Your task to perform on an android device: Find coffee shops on Maps Image 0: 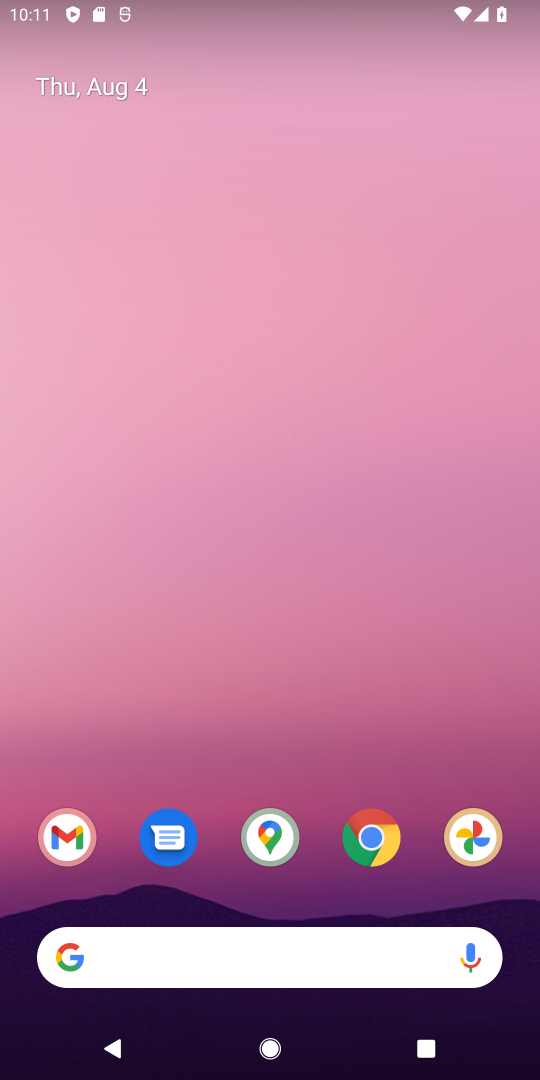
Step 0: drag from (286, 653) to (196, 38)
Your task to perform on an android device: Find coffee shops on Maps Image 1: 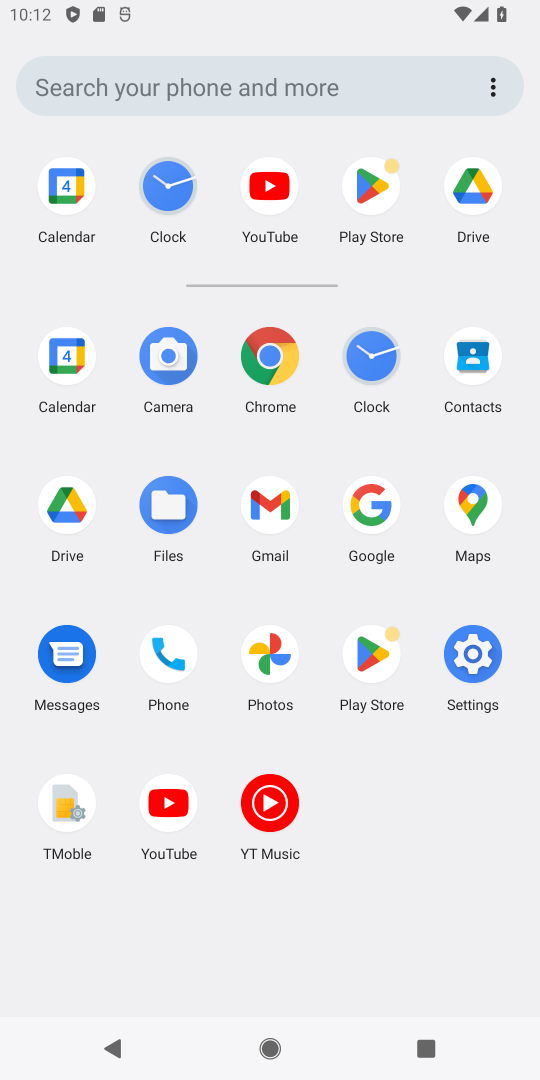
Step 1: click (464, 519)
Your task to perform on an android device: Find coffee shops on Maps Image 2: 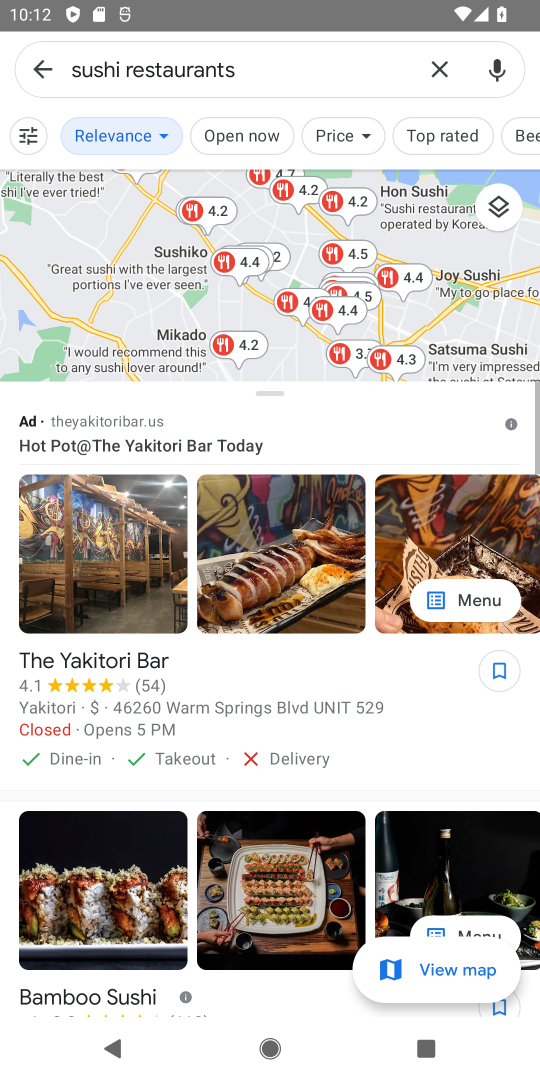
Step 2: press back button
Your task to perform on an android device: Find coffee shops on Maps Image 3: 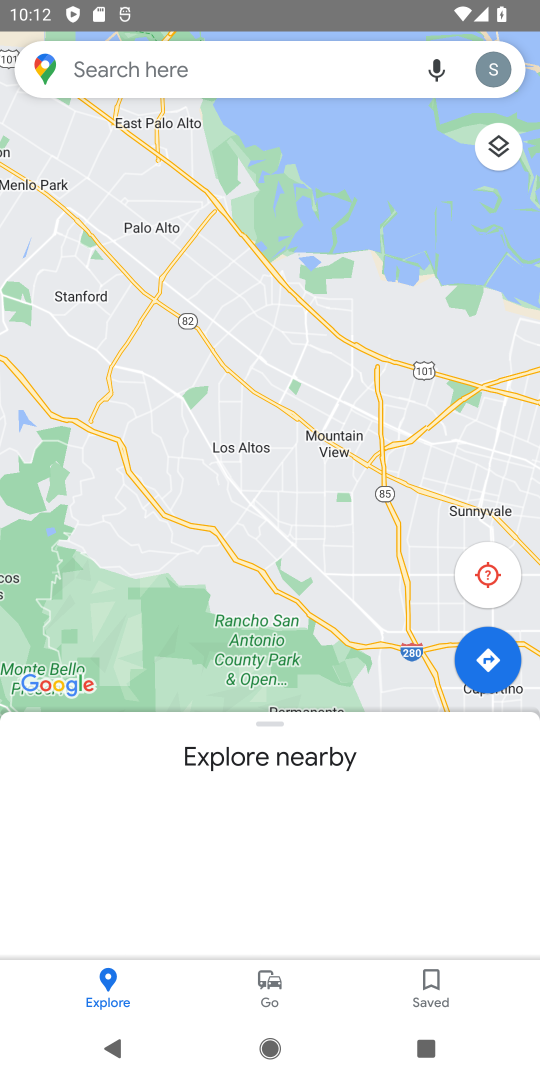
Step 3: click (167, 70)
Your task to perform on an android device: Find coffee shops on Maps Image 4: 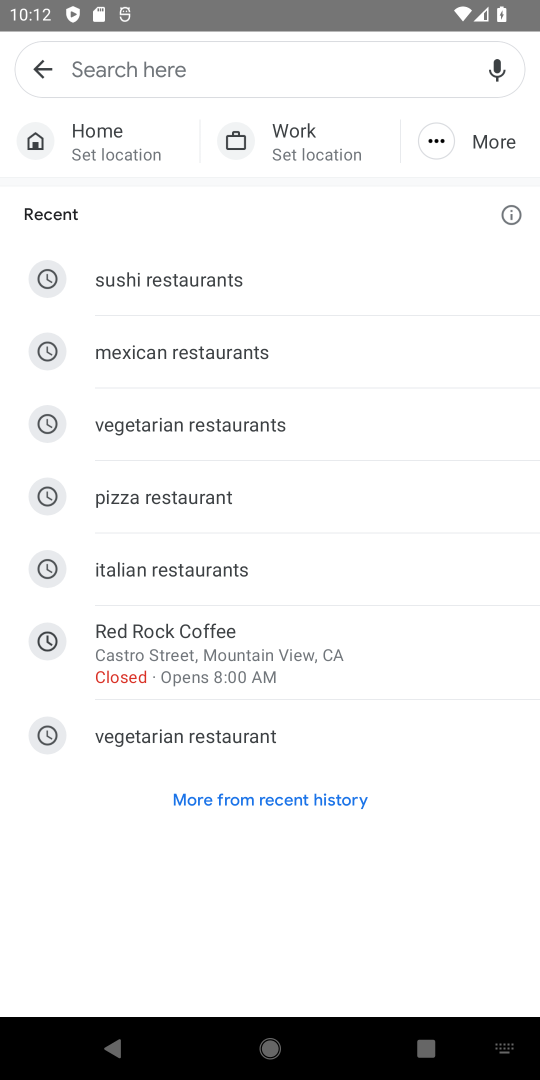
Step 4: type "coffee "
Your task to perform on an android device: Find coffee shops on Maps Image 5: 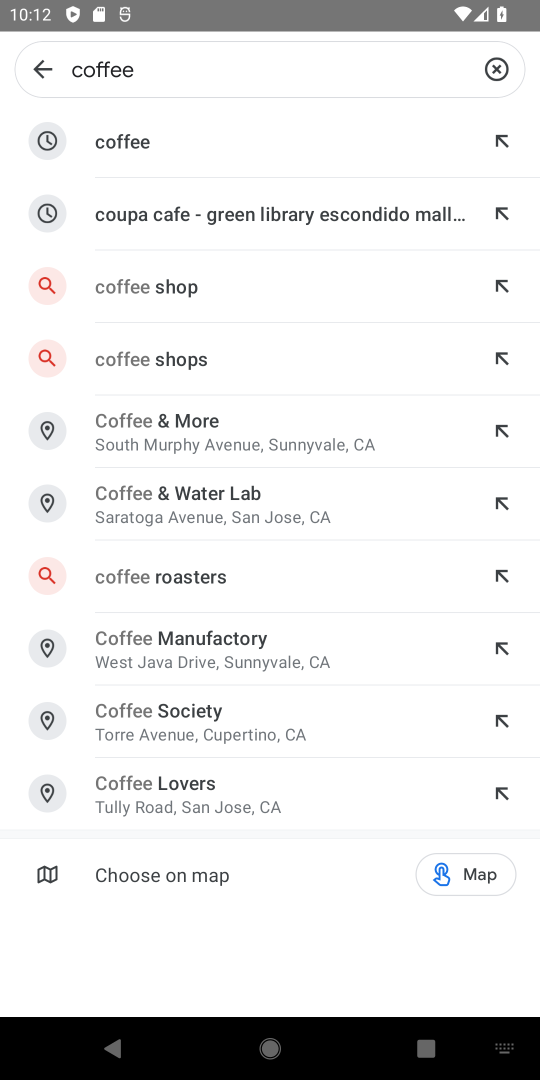
Step 5: click (143, 143)
Your task to perform on an android device: Find coffee shops on Maps Image 6: 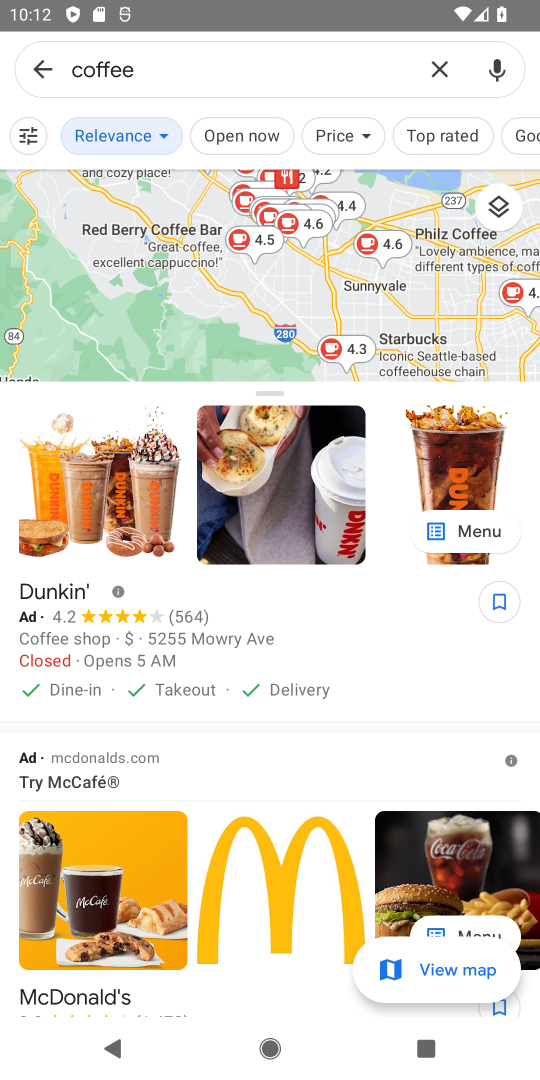
Step 6: task complete